Your task to perform on an android device: Open the phone app and click the voicemail tab. Image 0: 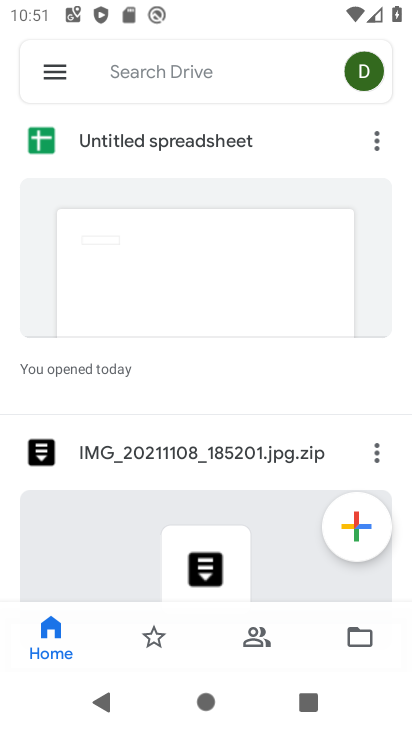
Step 0: press home button
Your task to perform on an android device: Open the phone app and click the voicemail tab. Image 1: 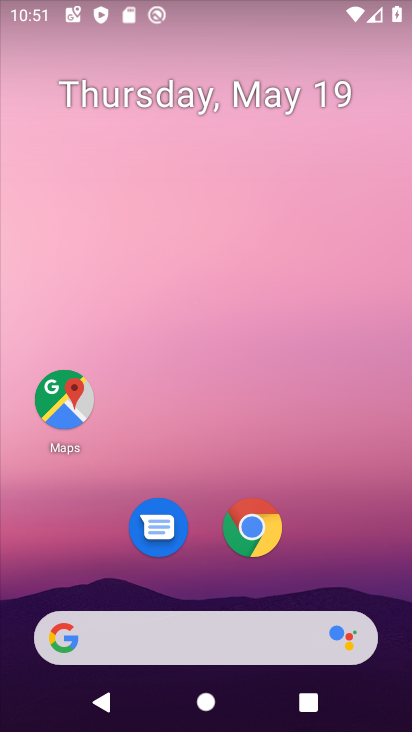
Step 1: drag from (196, 575) to (208, 134)
Your task to perform on an android device: Open the phone app and click the voicemail tab. Image 2: 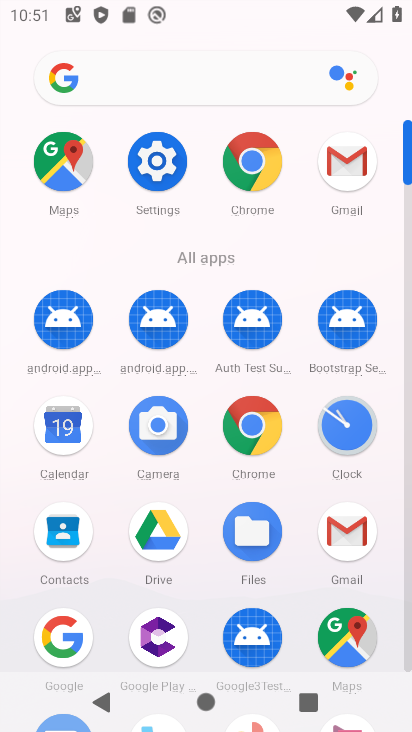
Step 2: drag from (200, 593) to (232, 287)
Your task to perform on an android device: Open the phone app and click the voicemail tab. Image 3: 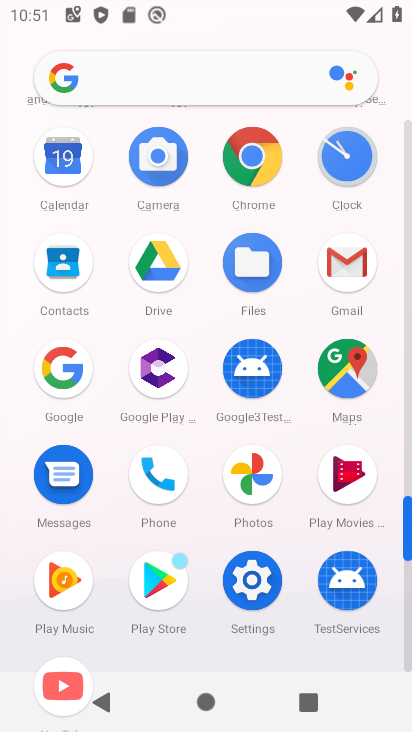
Step 3: click (162, 479)
Your task to perform on an android device: Open the phone app and click the voicemail tab. Image 4: 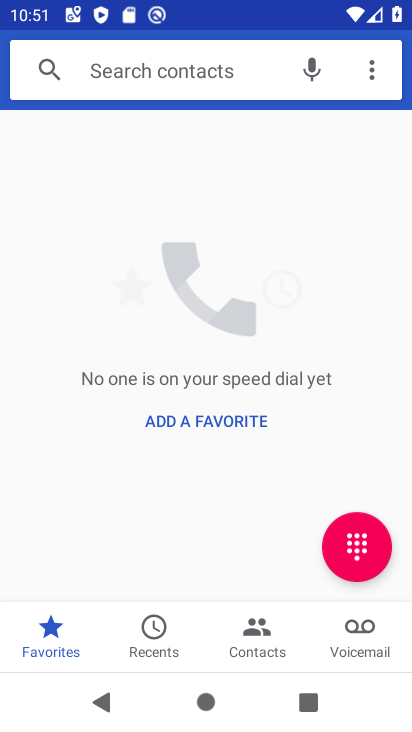
Step 4: click (366, 639)
Your task to perform on an android device: Open the phone app and click the voicemail tab. Image 5: 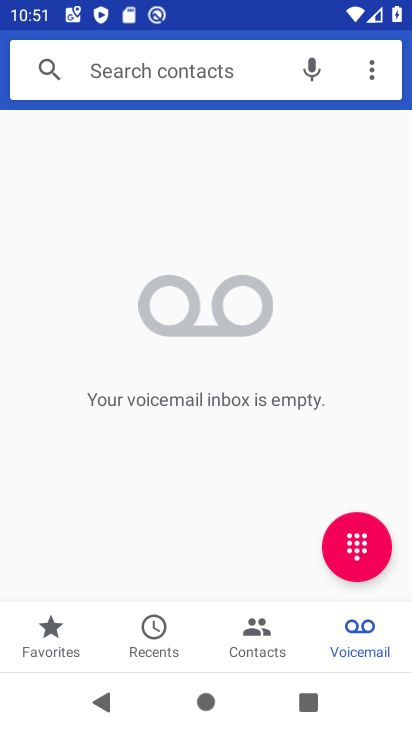
Step 5: task complete